Your task to perform on an android device: create a new album in the google photos Image 0: 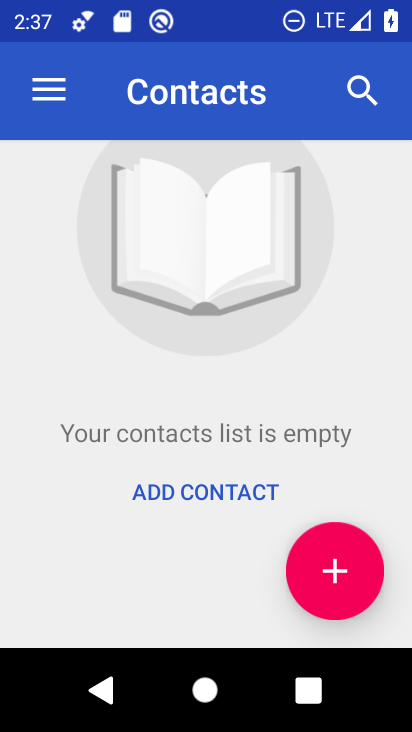
Step 0: press home button
Your task to perform on an android device: create a new album in the google photos Image 1: 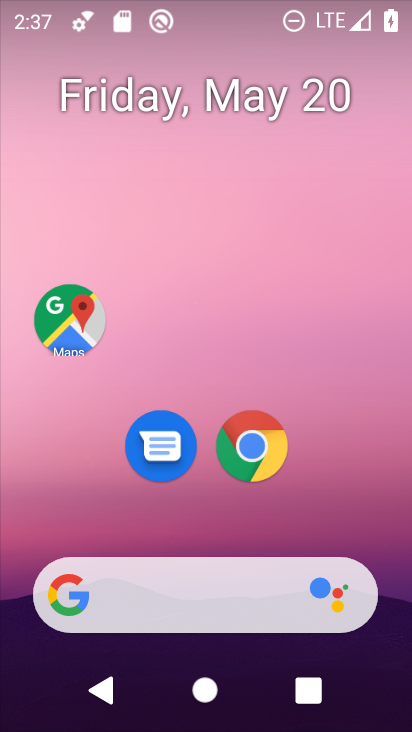
Step 1: drag from (386, 559) to (380, 16)
Your task to perform on an android device: create a new album in the google photos Image 2: 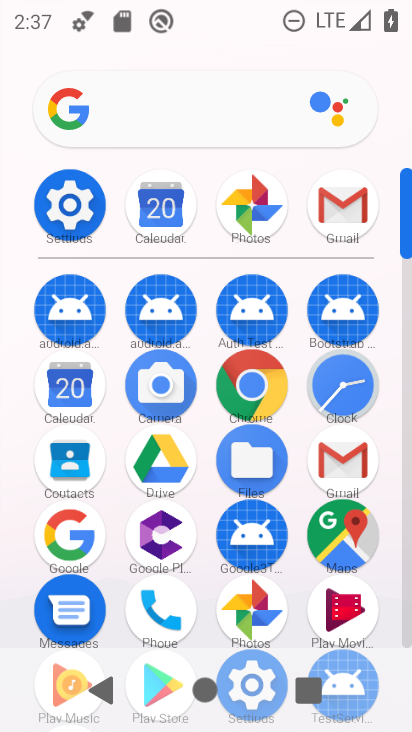
Step 2: click (244, 211)
Your task to perform on an android device: create a new album in the google photos Image 3: 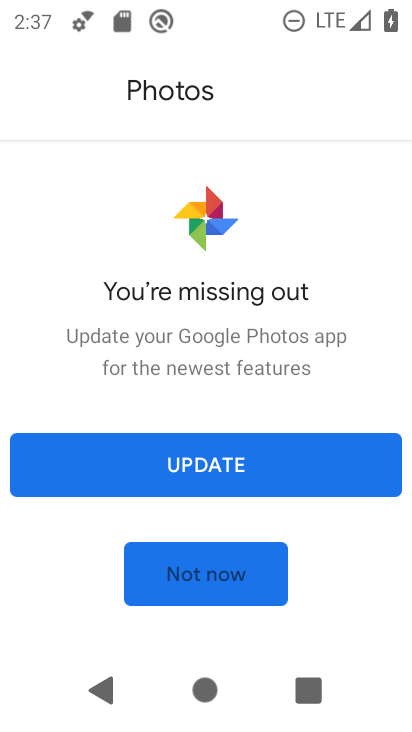
Step 3: click (205, 588)
Your task to perform on an android device: create a new album in the google photos Image 4: 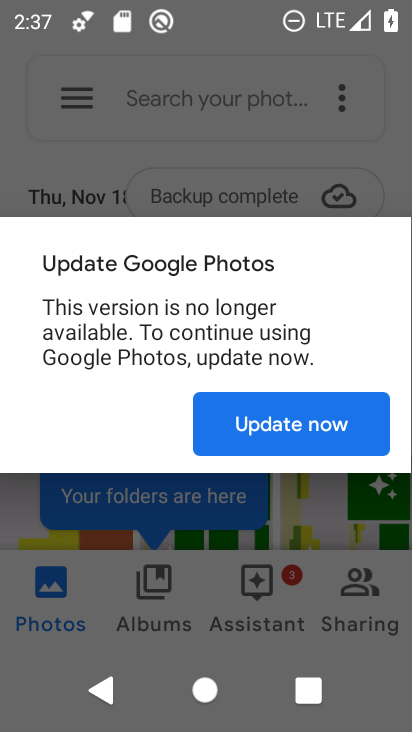
Step 4: click (294, 423)
Your task to perform on an android device: create a new album in the google photos Image 5: 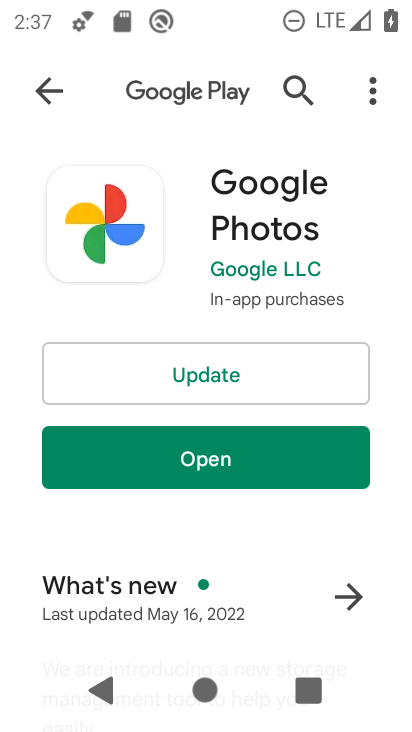
Step 5: click (227, 466)
Your task to perform on an android device: create a new album in the google photos Image 6: 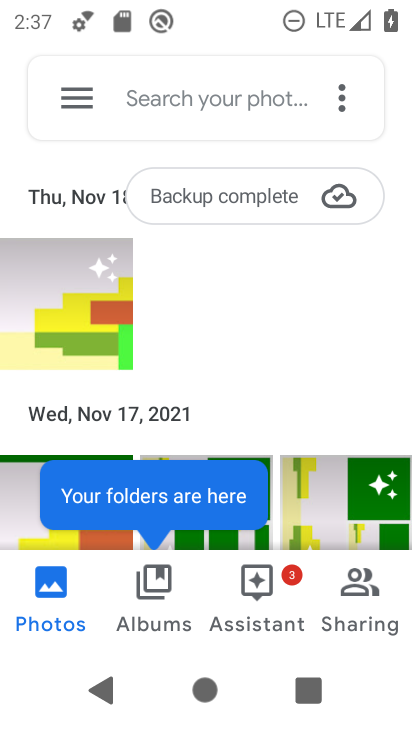
Step 6: drag from (342, 389) to (349, 317)
Your task to perform on an android device: create a new album in the google photos Image 7: 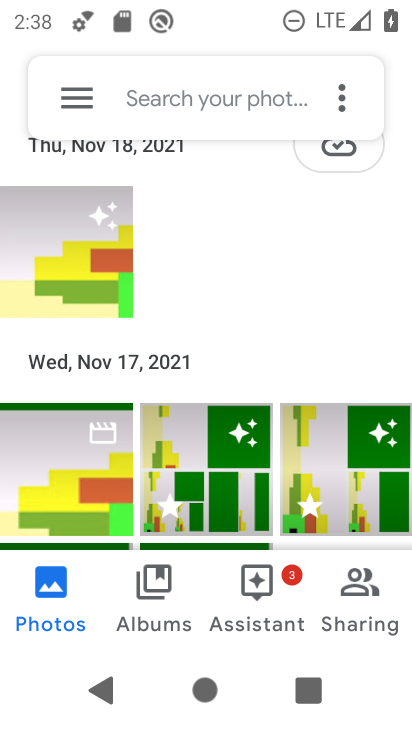
Step 7: click (199, 445)
Your task to perform on an android device: create a new album in the google photos Image 8: 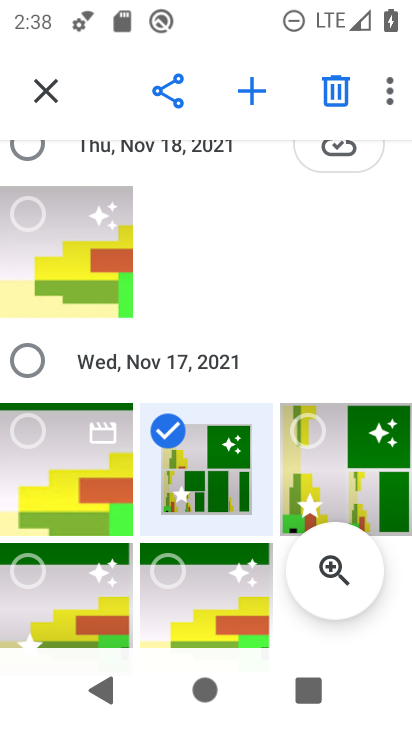
Step 8: click (318, 445)
Your task to perform on an android device: create a new album in the google photos Image 9: 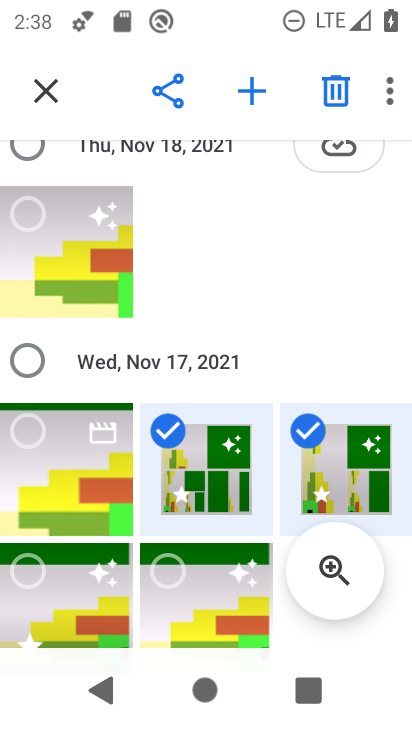
Step 9: click (254, 90)
Your task to perform on an android device: create a new album in the google photos Image 10: 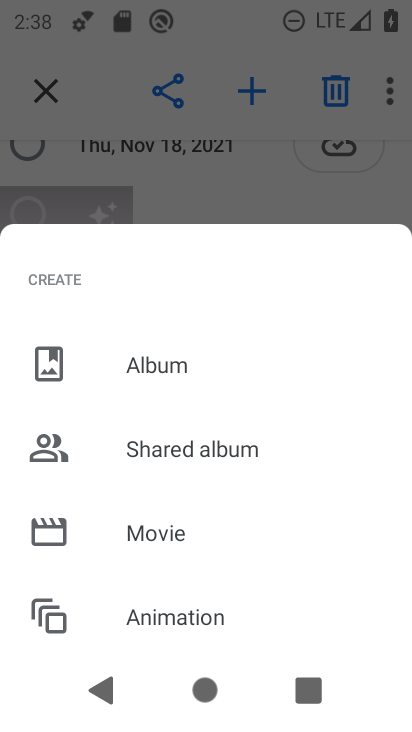
Step 10: click (150, 360)
Your task to perform on an android device: create a new album in the google photos Image 11: 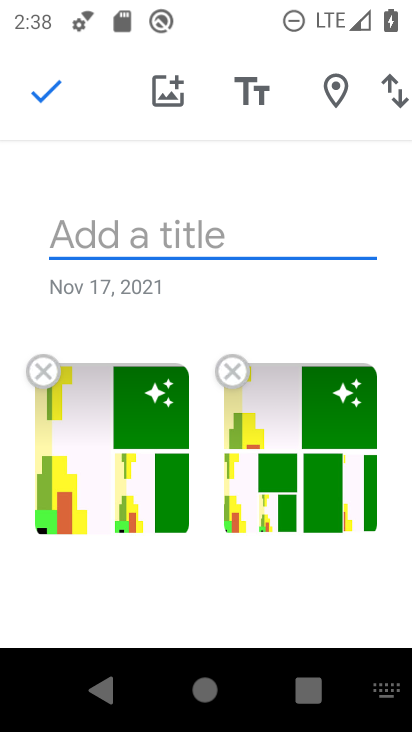
Step 11: click (85, 242)
Your task to perform on an android device: create a new album in the google photos Image 12: 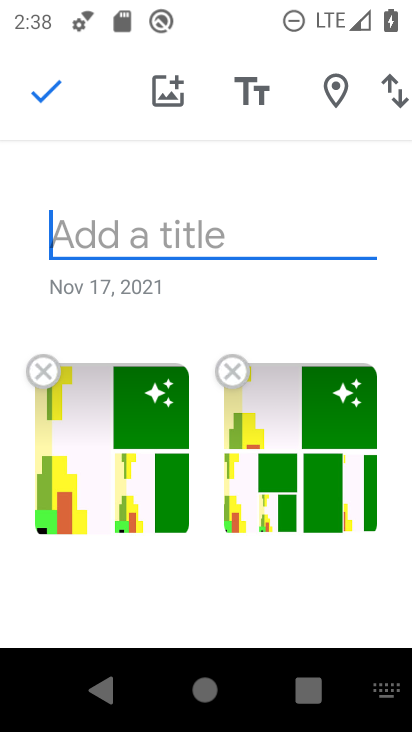
Step 12: type "new 1"
Your task to perform on an android device: create a new album in the google photos Image 13: 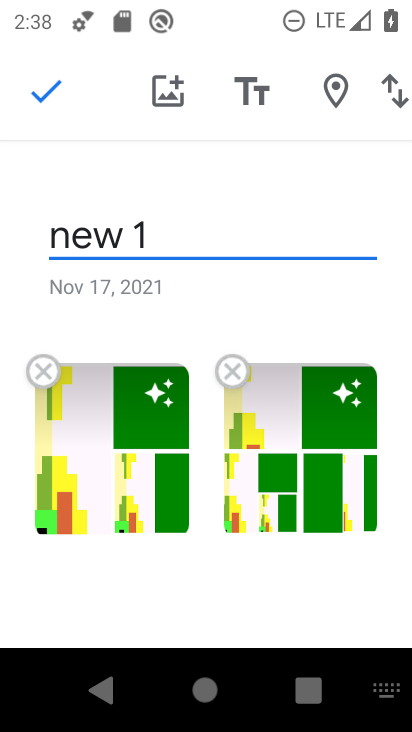
Step 13: click (31, 102)
Your task to perform on an android device: create a new album in the google photos Image 14: 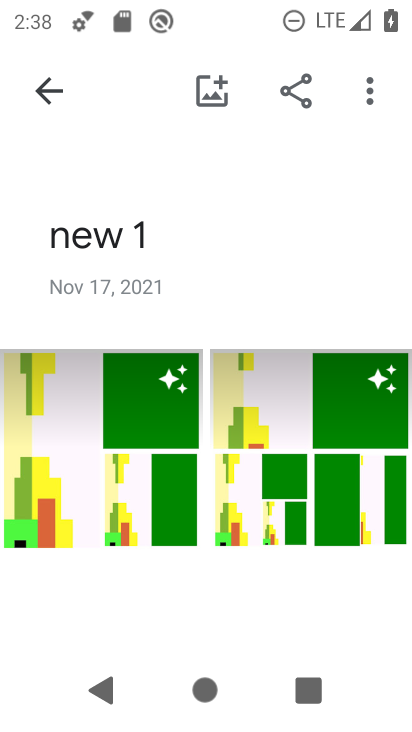
Step 14: task complete